Your task to perform on an android device: Open Google Chrome Image 0: 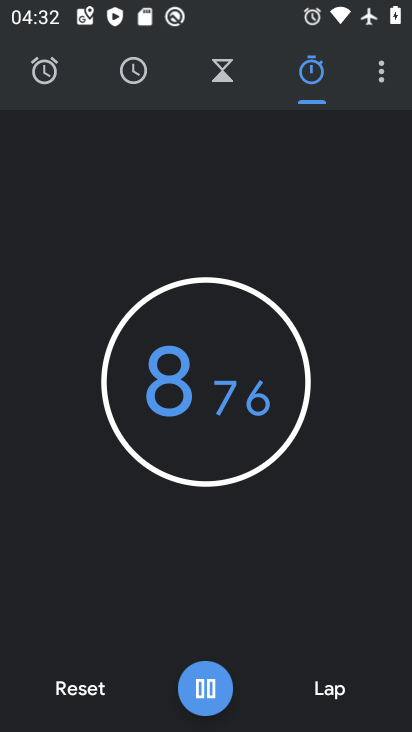
Step 0: press home button
Your task to perform on an android device: Open Google Chrome Image 1: 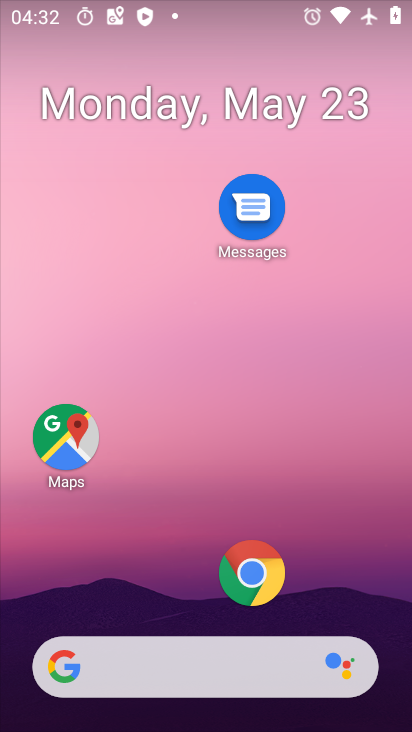
Step 1: drag from (382, 644) to (334, 112)
Your task to perform on an android device: Open Google Chrome Image 2: 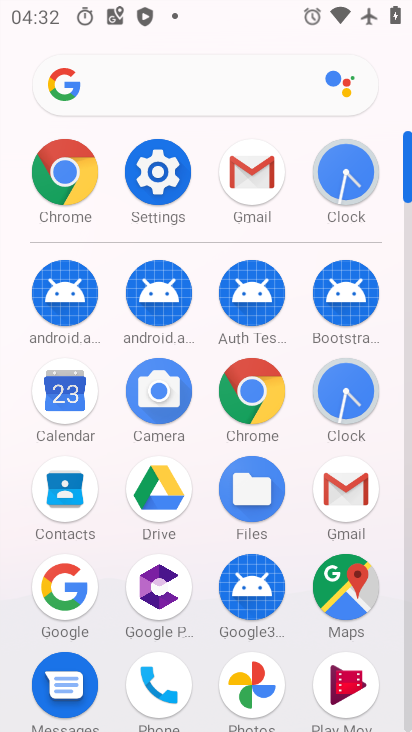
Step 2: click (273, 396)
Your task to perform on an android device: Open Google Chrome Image 3: 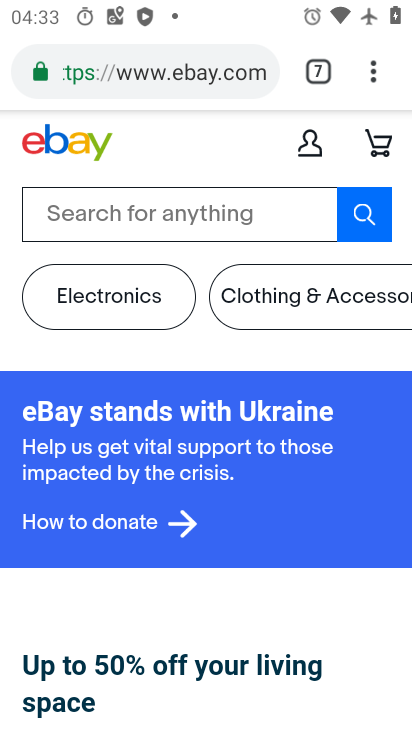
Step 3: task complete